Your task to perform on an android device: See recent photos Image 0: 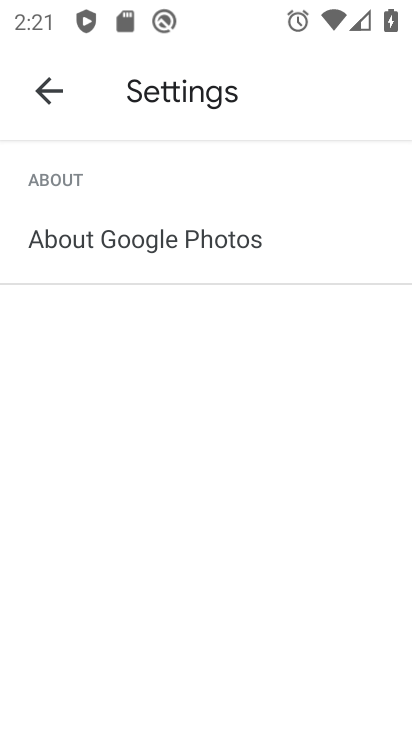
Step 0: drag from (234, 582) to (206, 204)
Your task to perform on an android device: See recent photos Image 1: 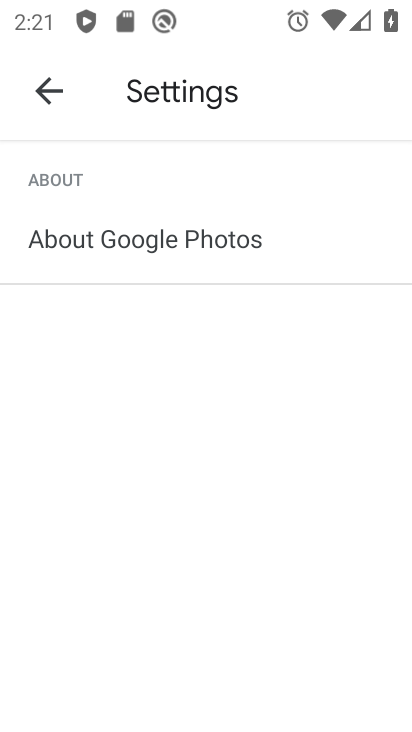
Step 1: click (52, 106)
Your task to perform on an android device: See recent photos Image 2: 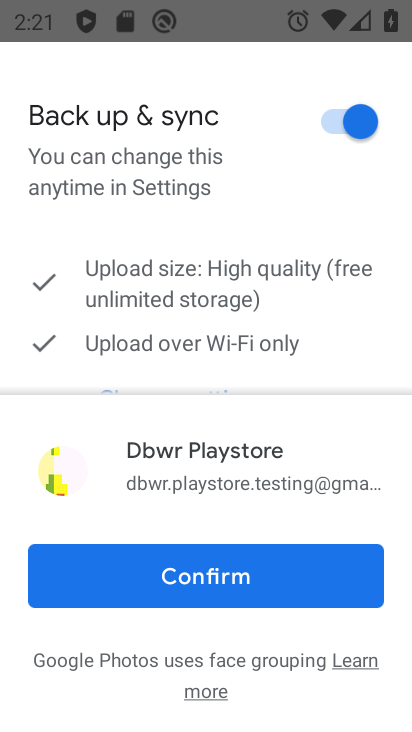
Step 2: drag from (169, 528) to (170, 186)
Your task to perform on an android device: See recent photos Image 3: 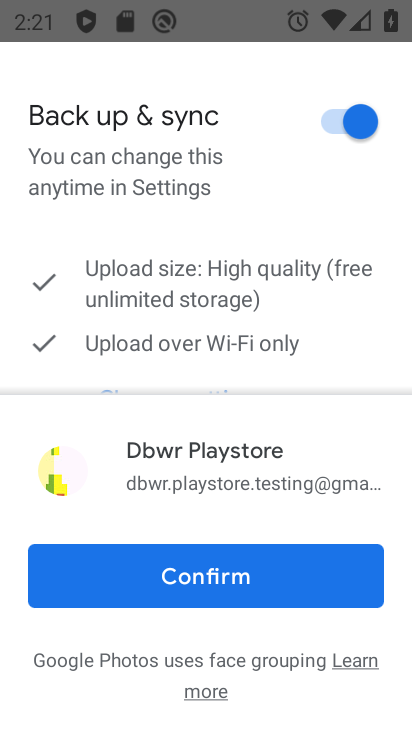
Step 3: drag from (223, 617) to (237, 185)
Your task to perform on an android device: See recent photos Image 4: 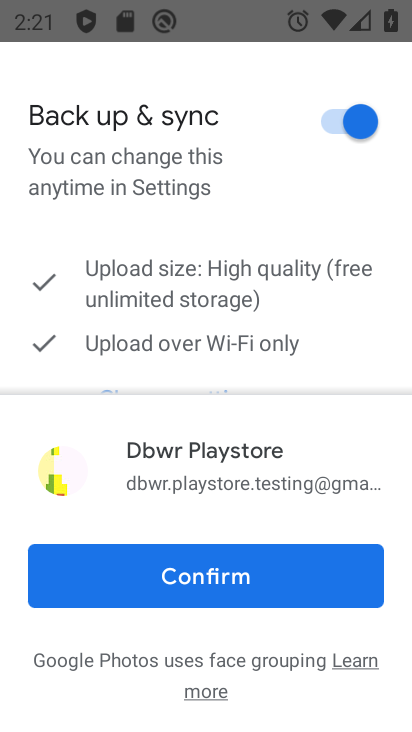
Step 4: click (235, 584)
Your task to perform on an android device: See recent photos Image 5: 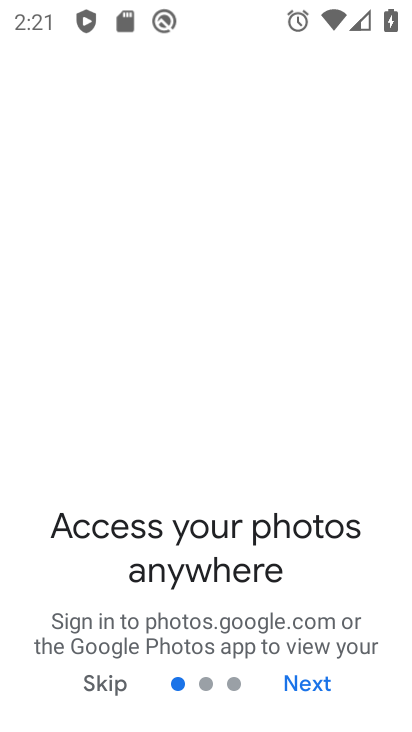
Step 5: click (304, 682)
Your task to perform on an android device: See recent photos Image 6: 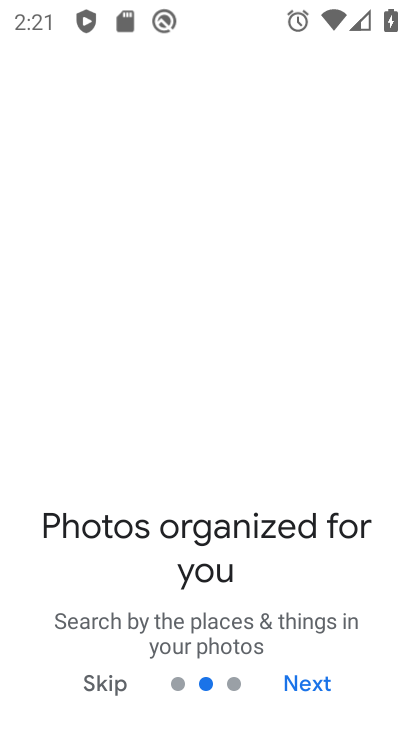
Step 6: click (317, 675)
Your task to perform on an android device: See recent photos Image 7: 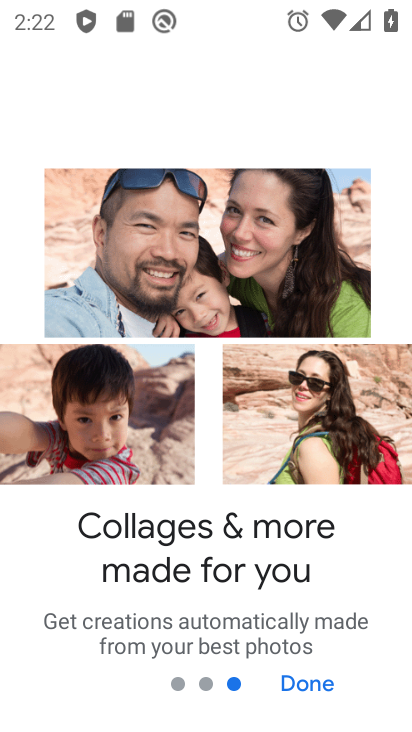
Step 7: click (296, 680)
Your task to perform on an android device: See recent photos Image 8: 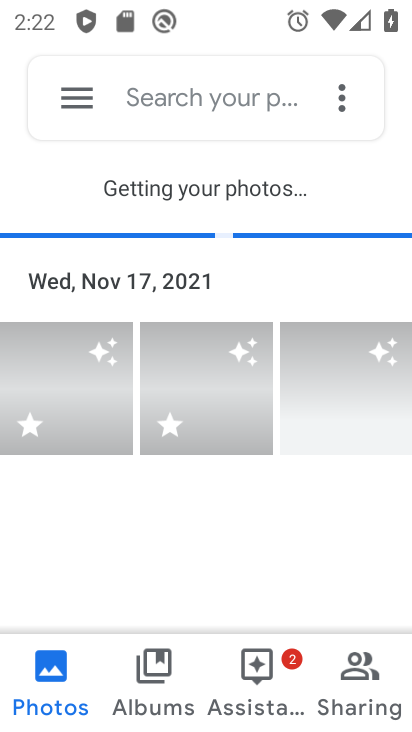
Step 8: task complete